Your task to perform on an android device: Open calendar and show me the third week of next month Image 0: 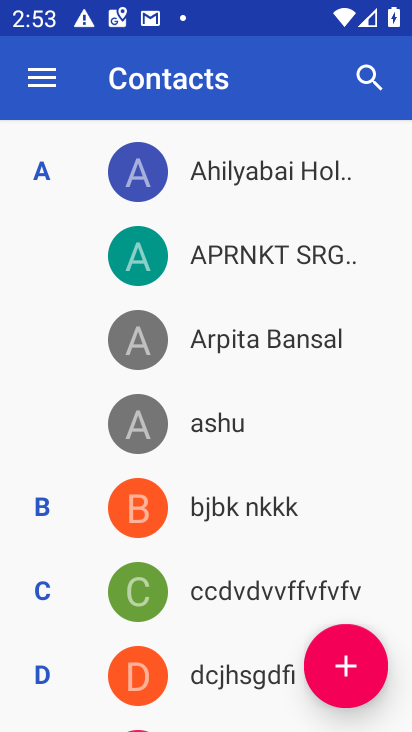
Step 0: press home button
Your task to perform on an android device: Open calendar and show me the third week of next month Image 1: 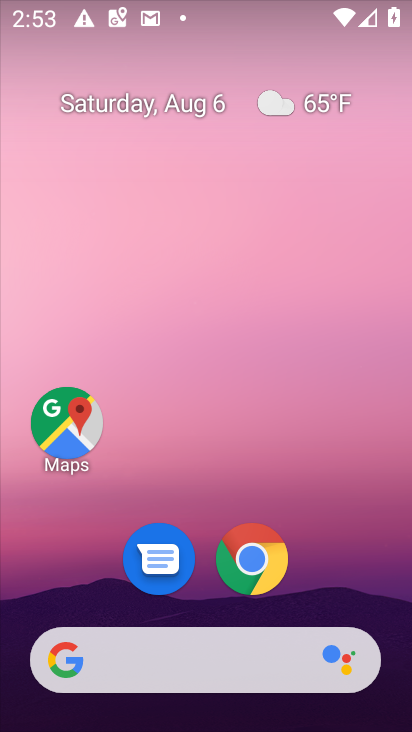
Step 1: drag from (195, 484) to (234, 54)
Your task to perform on an android device: Open calendar and show me the third week of next month Image 2: 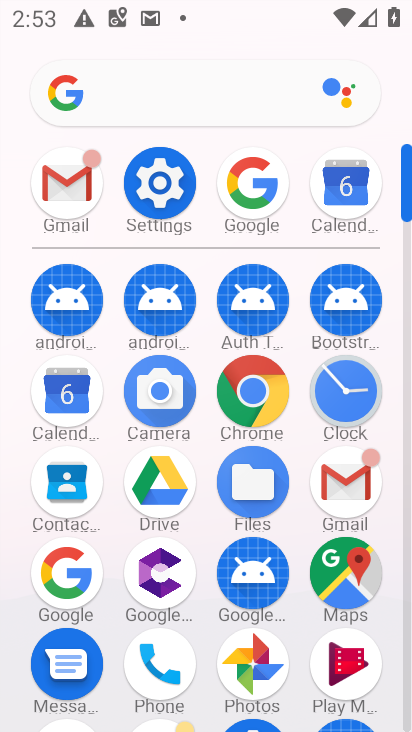
Step 2: click (339, 214)
Your task to perform on an android device: Open calendar and show me the third week of next month Image 3: 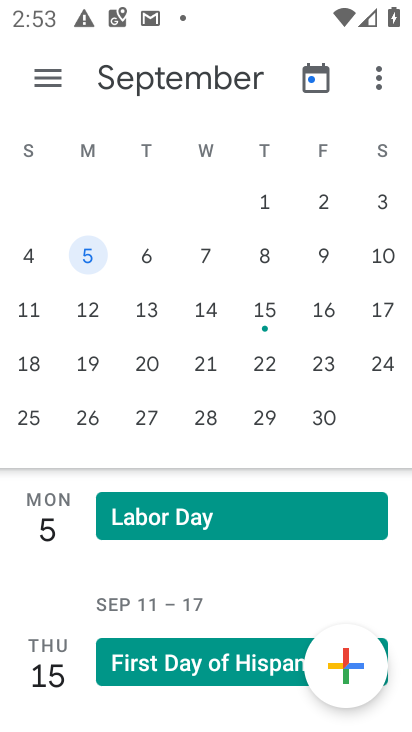
Step 3: click (33, 308)
Your task to perform on an android device: Open calendar and show me the third week of next month Image 4: 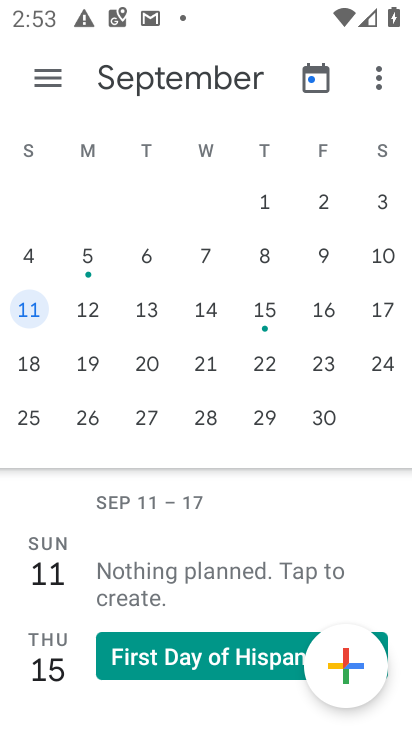
Step 4: task complete